Your task to perform on an android device: check out phone information Image 0: 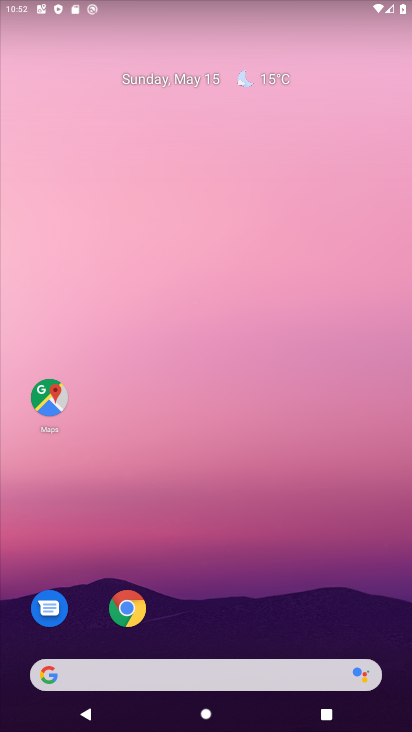
Step 0: drag from (236, 620) to (298, 214)
Your task to perform on an android device: check out phone information Image 1: 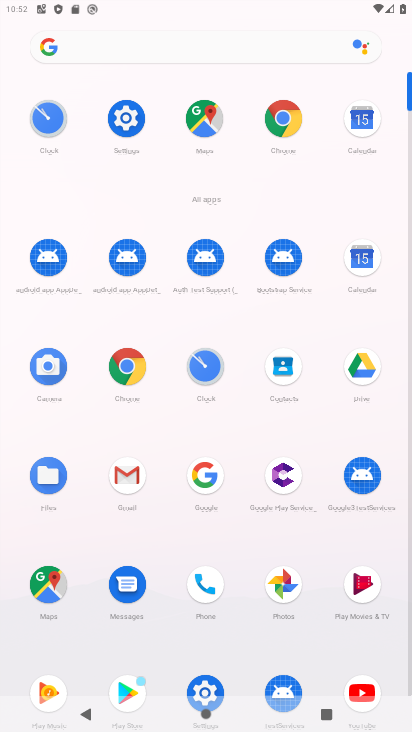
Step 1: click (120, 123)
Your task to perform on an android device: check out phone information Image 2: 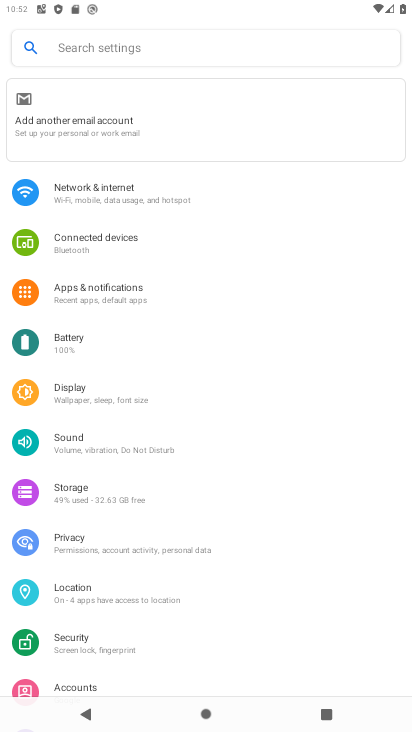
Step 2: drag from (159, 439) to (190, 192)
Your task to perform on an android device: check out phone information Image 3: 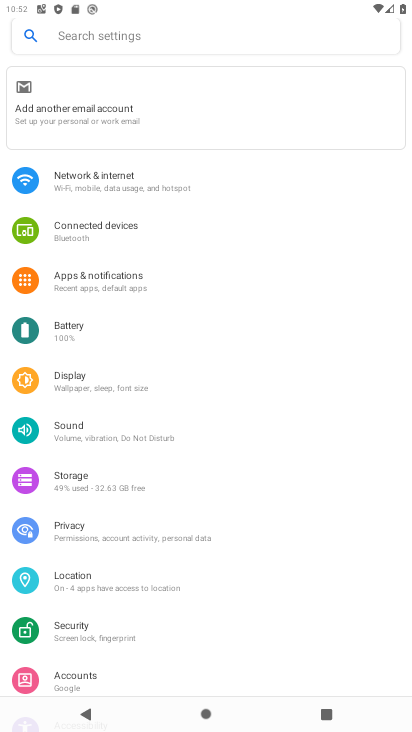
Step 3: drag from (114, 654) to (189, 271)
Your task to perform on an android device: check out phone information Image 4: 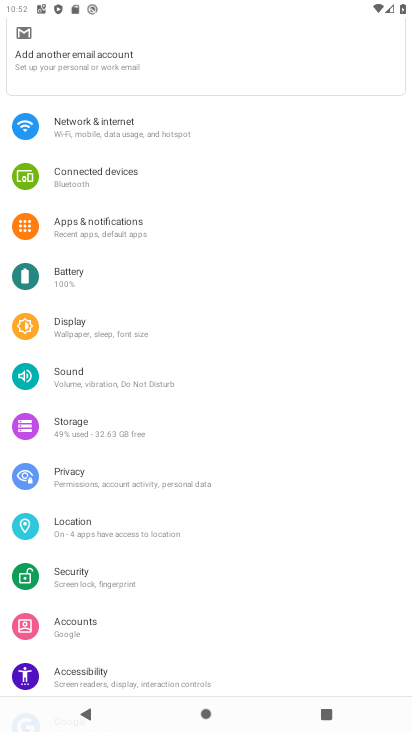
Step 4: drag from (213, 632) to (221, 182)
Your task to perform on an android device: check out phone information Image 5: 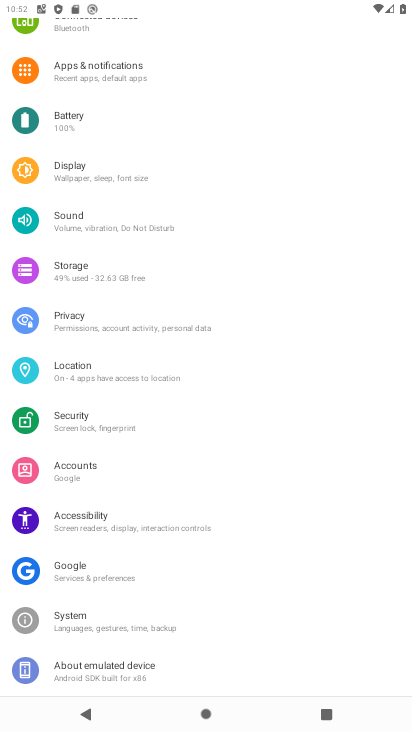
Step 5: drag from (102, 653) to (193, 150)
Your task to perform on an android device: check out phone information Image 6: 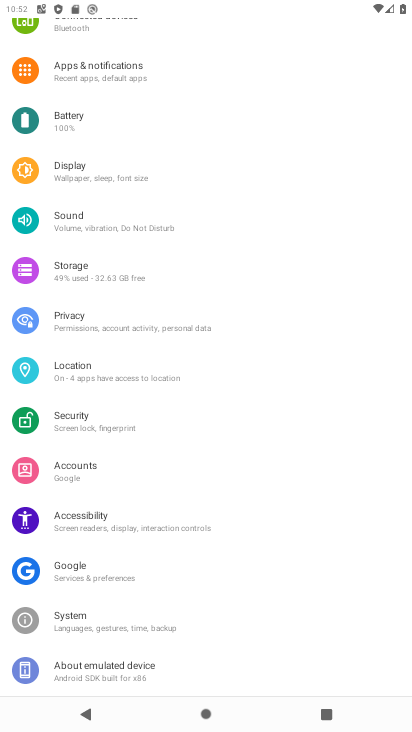
Step 6: click (103, 679)
Your task to perform on an android device: check out phone information Image 7: 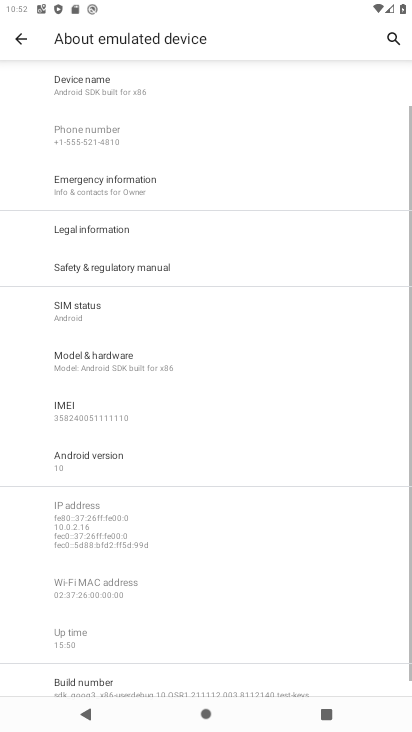
Step 7: task complete